Your task to perform on an android device: read, delete, or share a saved page in the chrome app Image 0: 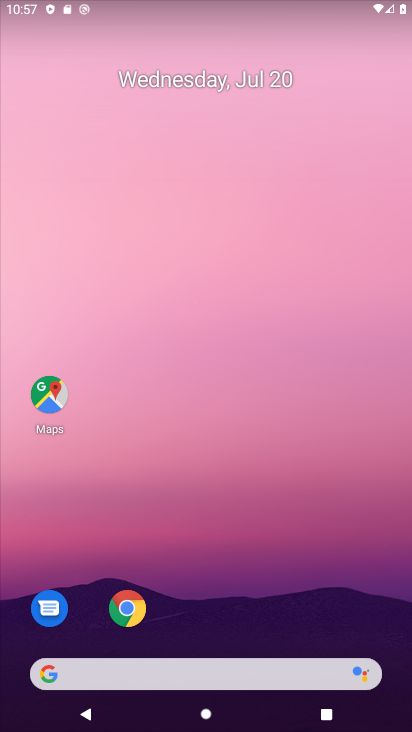
Step 0: drag from (283, 377) to (261, 73)
Your task to perform on an android device: read, delete, or share a saved page in the chrome app Image 1: 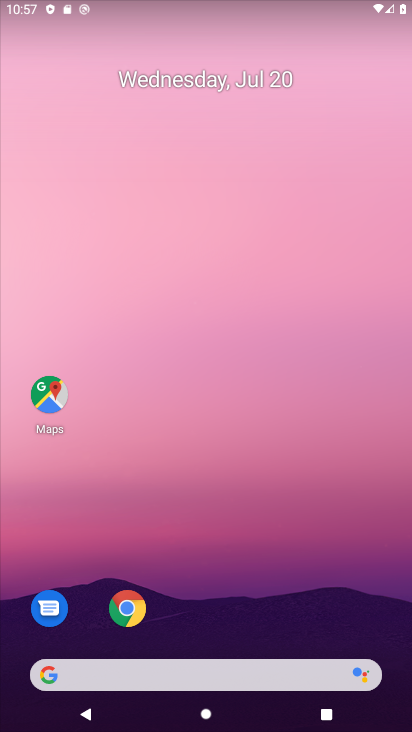
Step 1: click (127, 604)
Your task to perform on an android device: read, delete, or share a saved page in the chrome app Image 2: 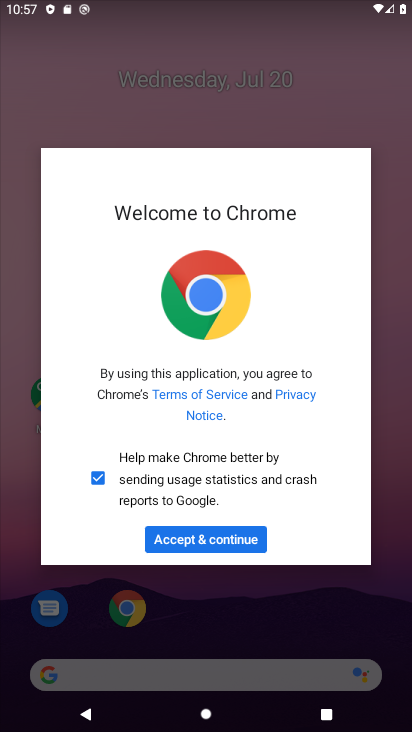
Step 2: click (223, 542)
Your task to perform on an android device: read, delete, or share a saved page in the chrome app Image 3: 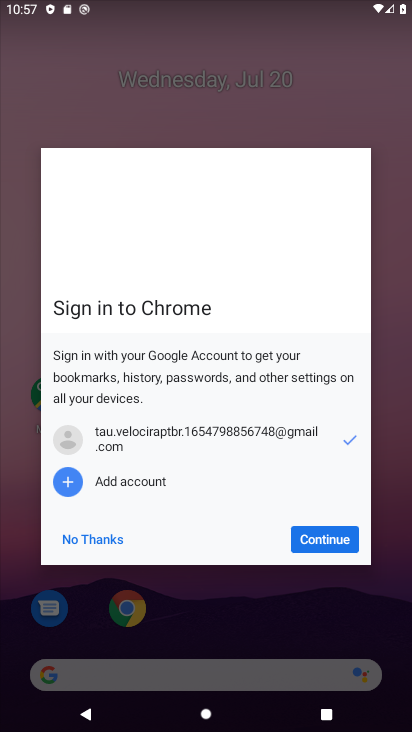
Step 3: click (344, 539)
Your task to perform on an android device: read, delete, or share a saved page in the chrome app Image 4: 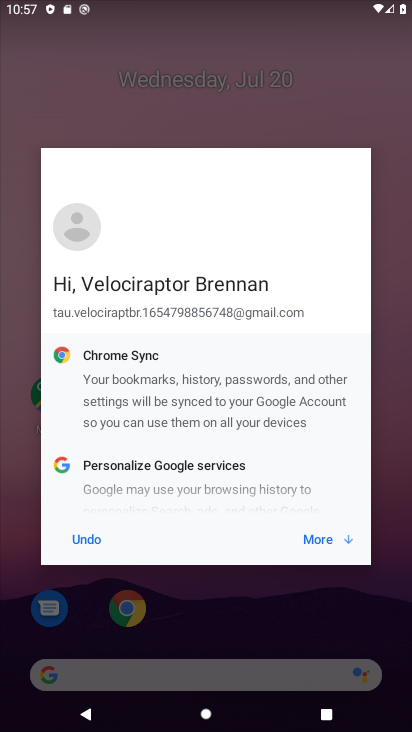
Step 4: click (309, 523)
Your task to perform on an android device: read, delete, or share a saved page in the chrome app Image 5: 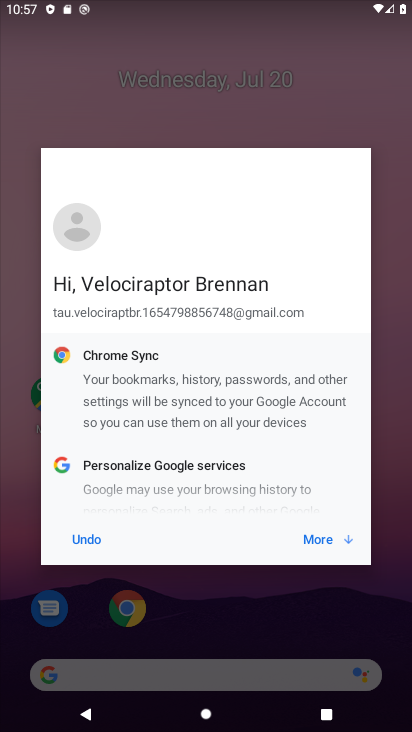
Step 5: click (320, 537)
Your task to perform on an android device: read, delete, or share a saved page in the chrome app Image 6: 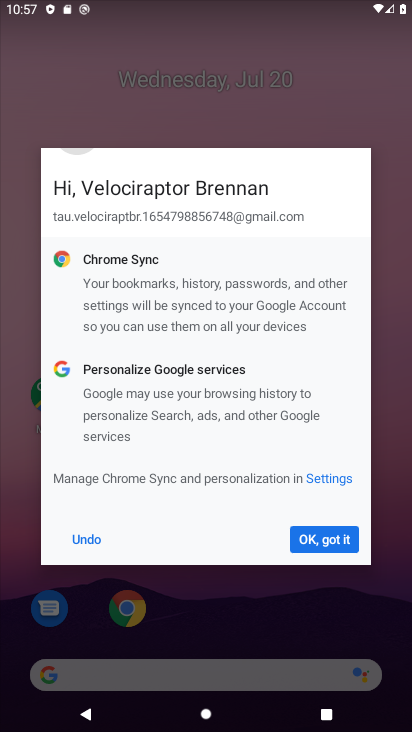
Step 6: click (336, 544)
Your task to perform on an android device: read, delete, or share a saved page in the chrome app Image 7: 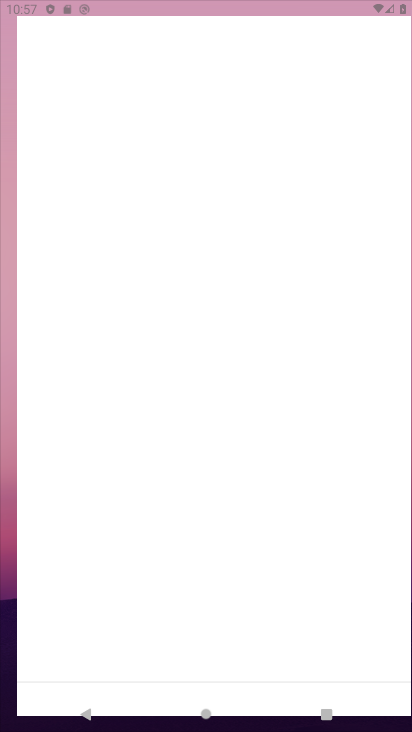
Step 7: click (336, 544)
Your task to perform on an android device: read, delete, or share a saved page in the chrome app Image 8: 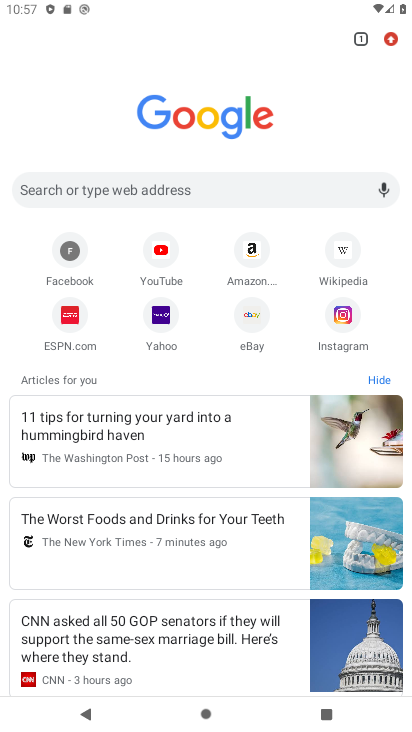
Step 8: click (386, 39)
Your task to perform on an android device: read, delete, or share a saved page in the chrome app Image 9: 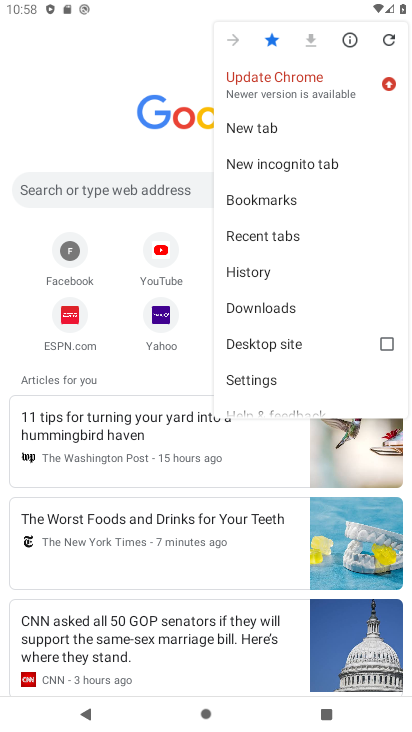
Step 9: click (279, 308)
Your task to perform on an android device: read, delete, or share a saved page in the chrome app Image 10: 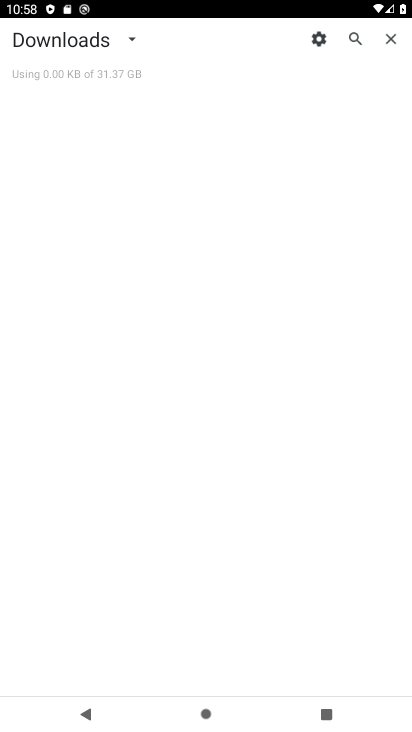
Step 10: click (126, 43)
Your task to perform on an android device: read, delete, or share a saved page in the chrome app Image 11: 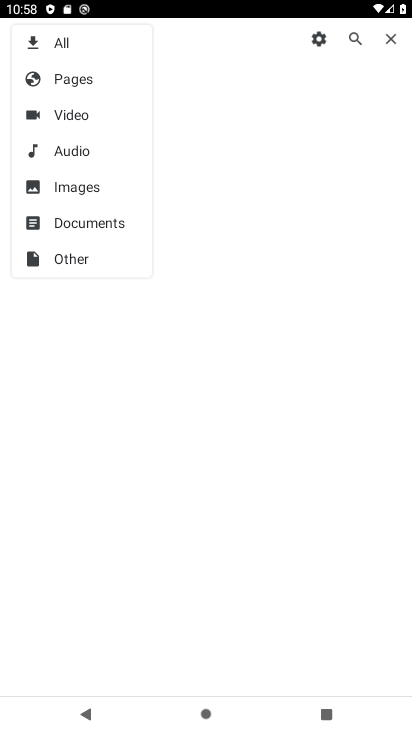
Step 11: click (96, 73)
Your task to perform on an android device: read, delete, or share a saved page in the chrome app Image 12: 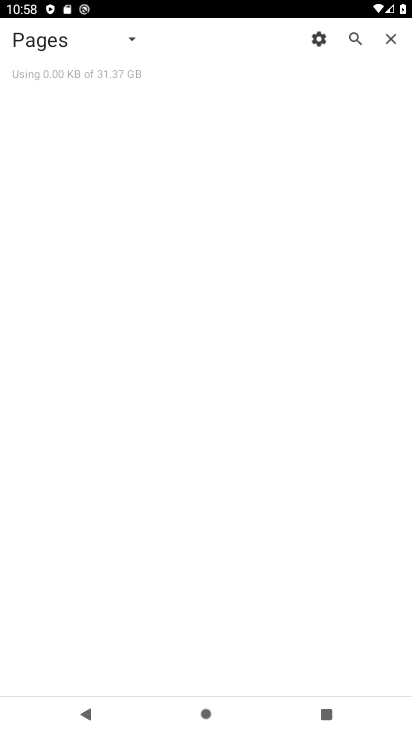
Step 12: task complete